Your task to perform on an android device: Check the news Image 0: 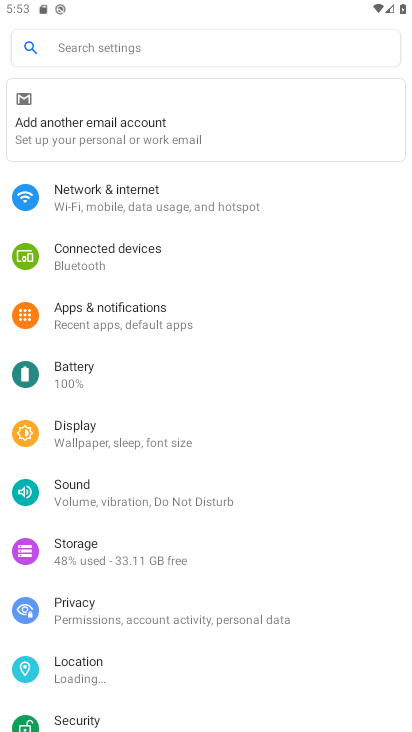
Step 0: press home button
Your task to perform on an android device: Check the news Image 1: 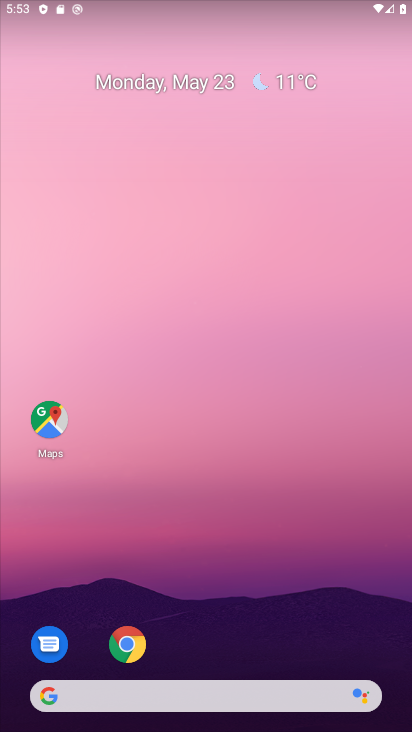
Step 1: click (171, 695)
Your task to perform on an android device: Check the news Image 2: 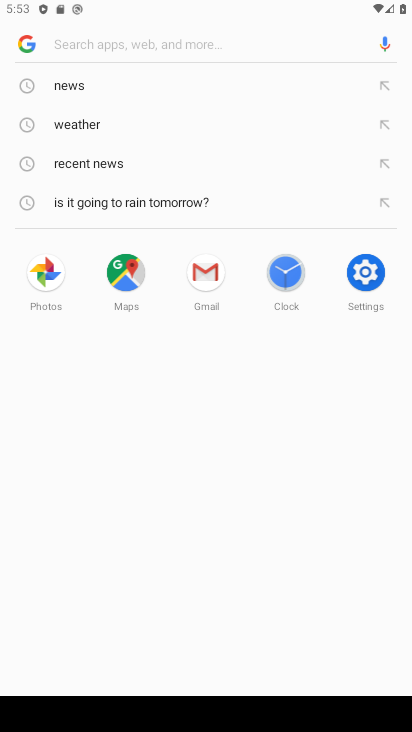
Step 2: click (63, 86)
Your task to perform on an android device: Check the news Image 3: 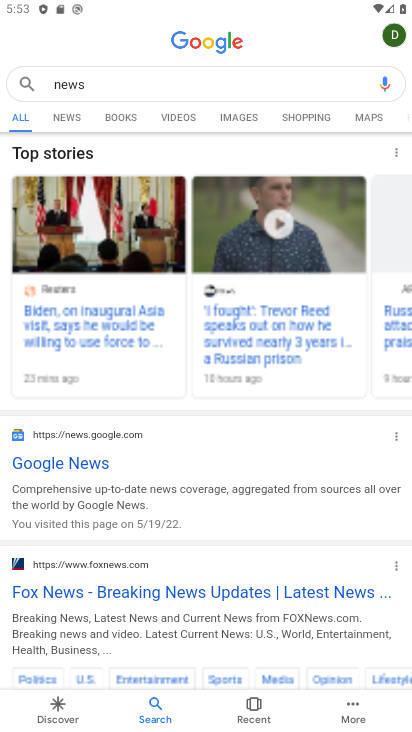
Step 3: task complete